Your task to perform on an android device: turn on bluetooth scan Image 0: 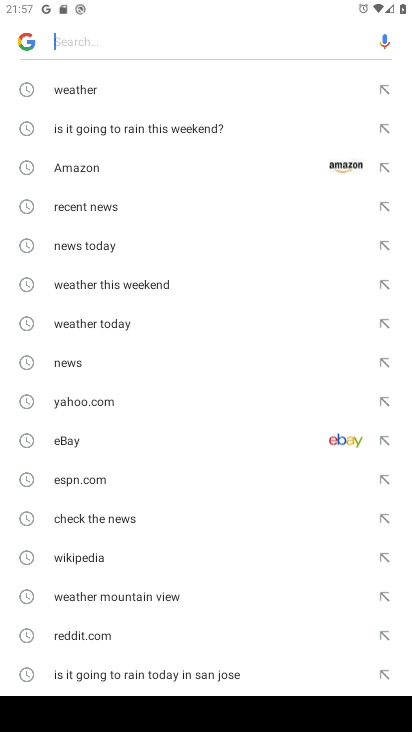
Step 0: press home button
Your task to perform on an android device: turn on bluetooth scan Image 1: 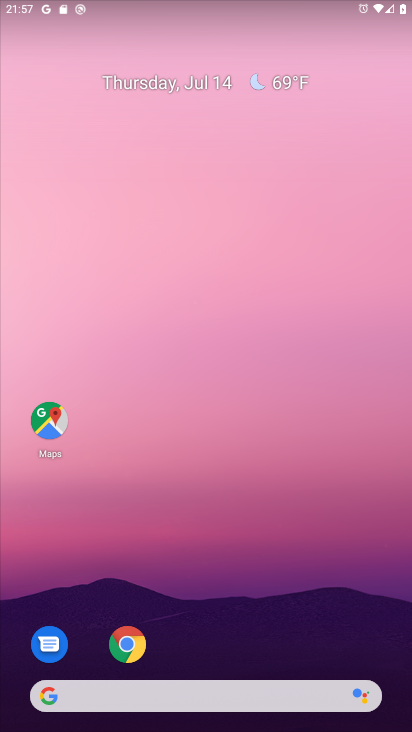
Step 1: drag from (200, 638) to (267, 11)
Your task to perform on an android device: turn on bluetooth scan Image 2: 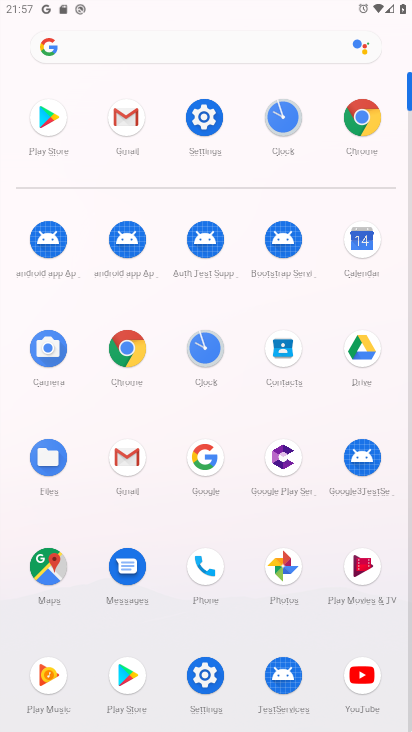
Step 2: click (218, 138)
Your task to perform on an android device: turn on bluetooth scan Image 3: 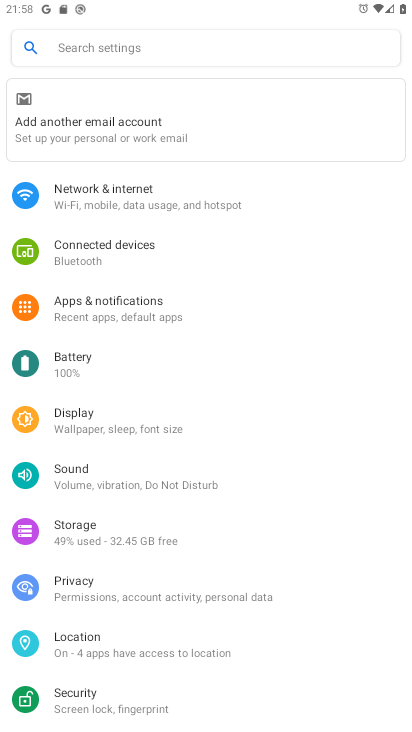
Step 3: click (66, 634)
Your task to perform on an android device: turn on bluetooth scan Image 4: 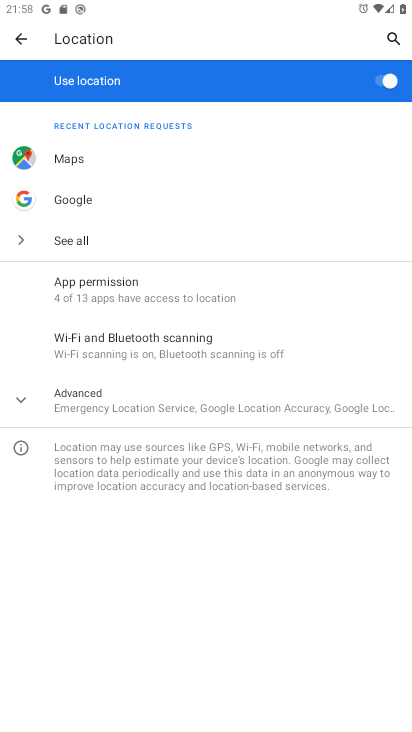
Step 4: click (210, 367)
Your task to perform on an android device: turn on bluetooth scan Image 5: 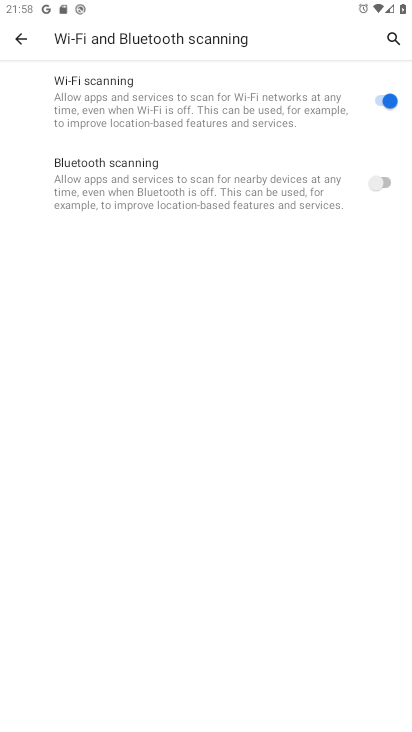
Step 5: click (389, 181)
Your task to perform on an android device: turn on bluetooth scan Image 6: 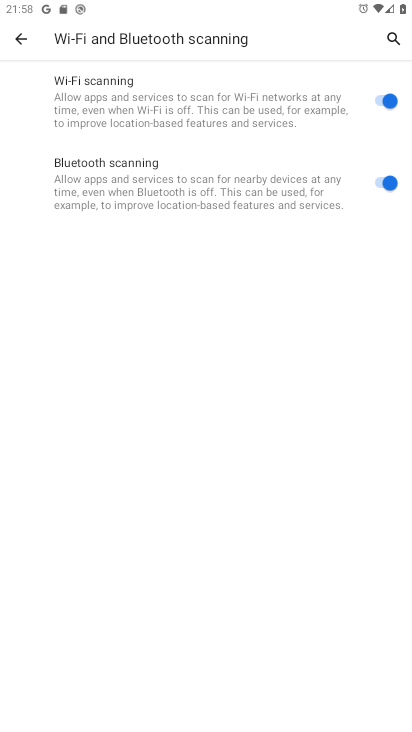
Step 6: task complete